Your task to perform on an android device: toggle javascript in the chrome app Image 0: 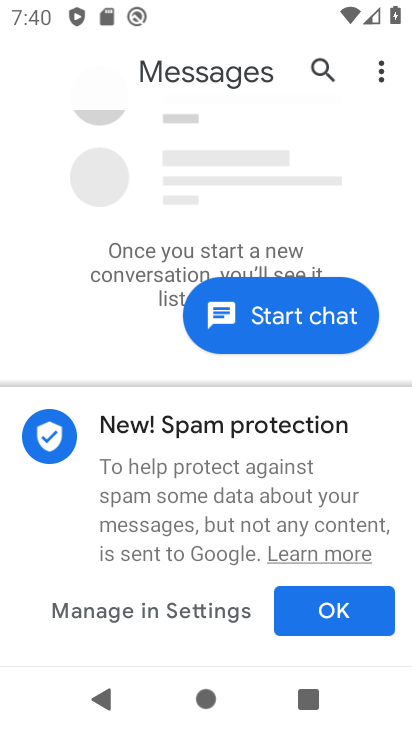
Step 0: press back button
Your task to perform on an android device: toggle javascript in the chrome app Image 1: 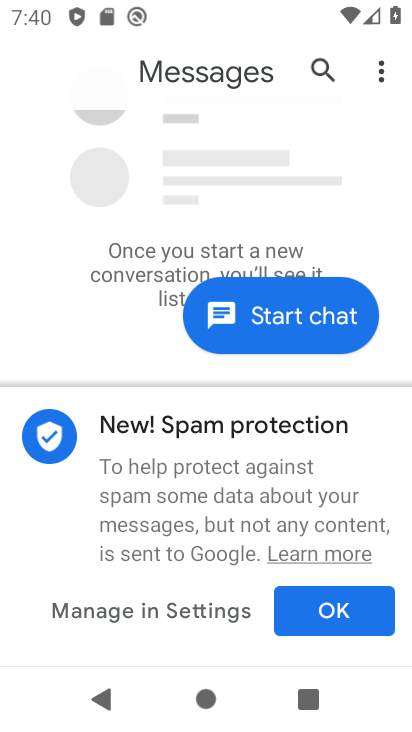
Step 1: press back button
Your task to perform on an android device: toggle javascript in the chrome app Image 2: 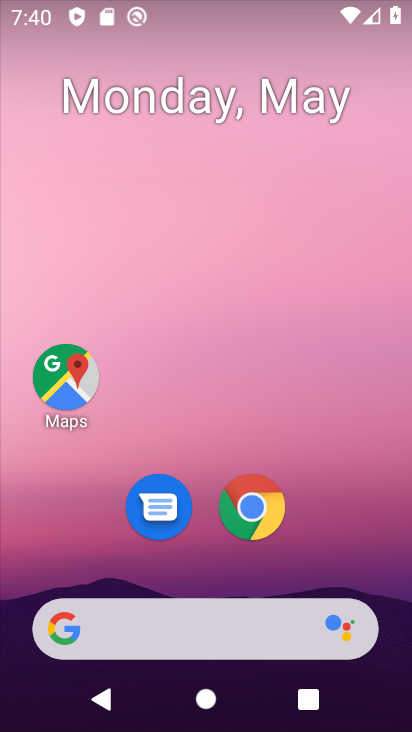
Step 2: drag from (163, 49) to (92, 4)
Your task to perform on an android device: toggle javascript in the chrome app Image 3: 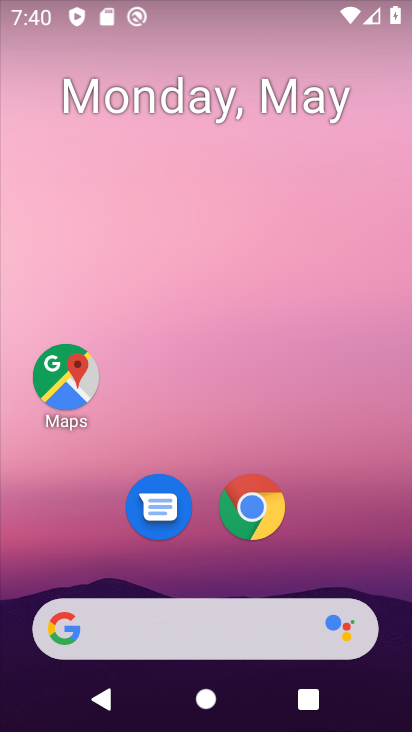
Step 3: drag from (213, 224) to (207, 27)
Your task to perform on an android device: toggle javascript in the chrome app Image 4: 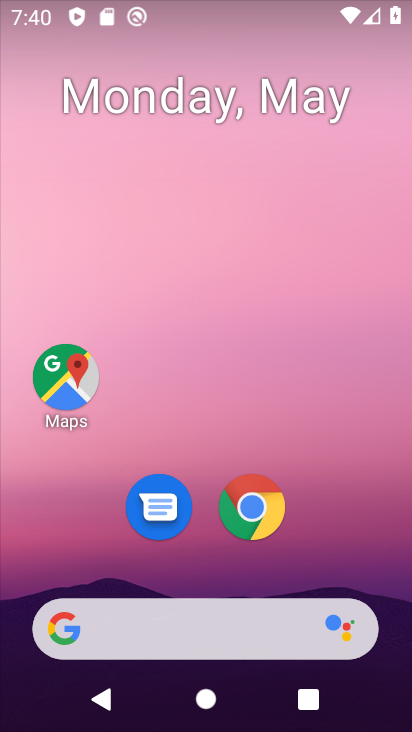
Step 4: drag from (286, 642) to (248, 24)
Your task to perform on an android device: toggle javascript in the chrome app Image 5: 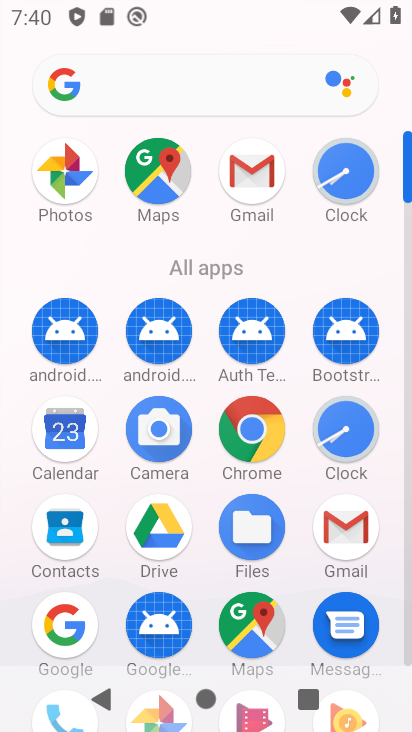
Step 5: drag from (209, 352) to (214, 50)
Your task to perform on an android device: toggle javascript in the chrome app Image 6: 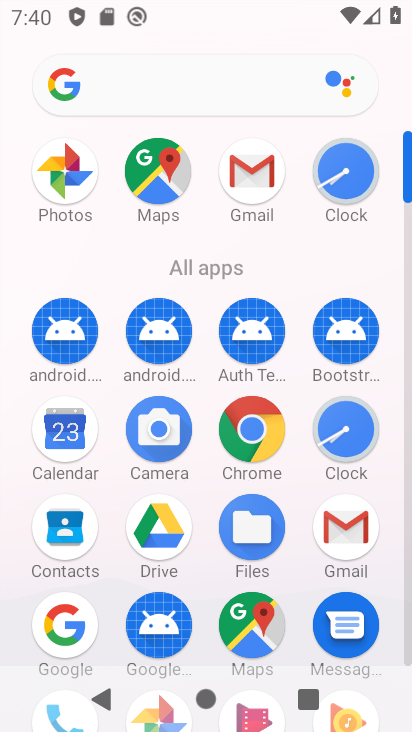
Step 6: click (250, 433)
Your task to perform on an android device: toggle javascript in the chrome app Image 7: 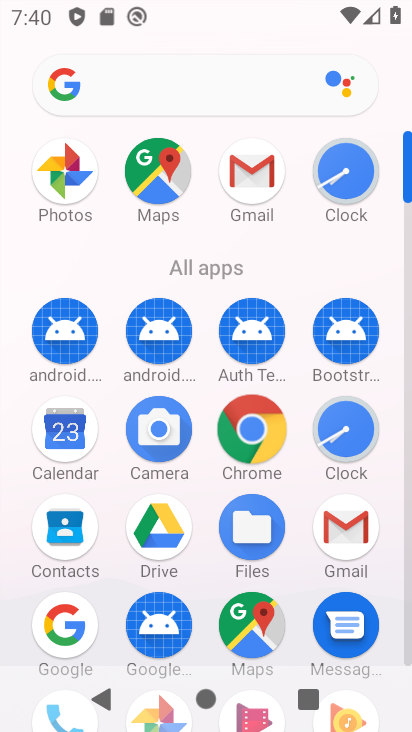
Step 7: click (250, 433)
Your task to perform on an android device: toggle javascript in the chrome app Image 8: 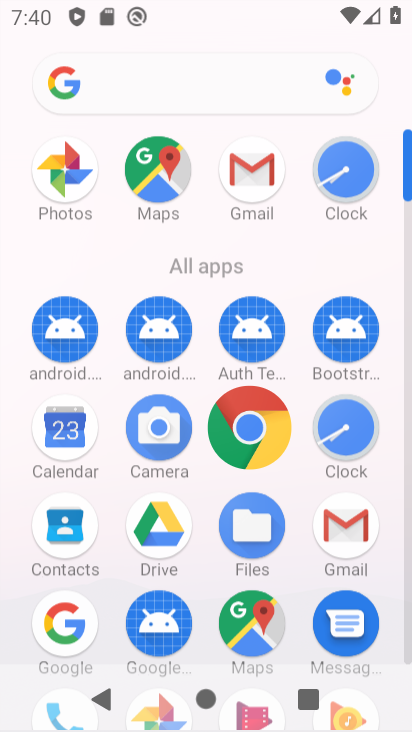
Step 8: click (252, 433)
Your task to perform on an android device: toggle javascript in the chrome app Image 9: 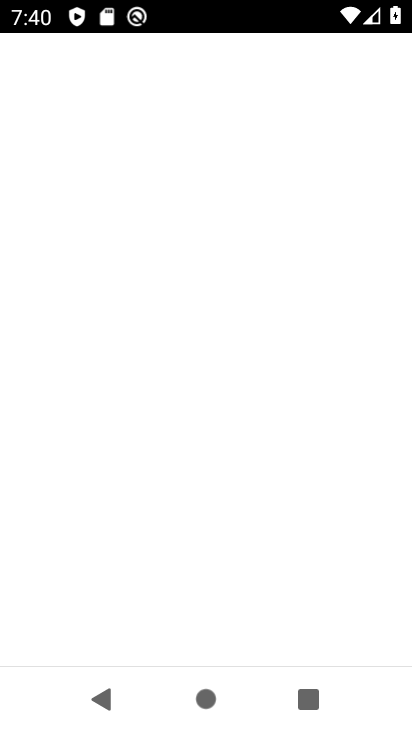
Step 9: click (253, 433)
Your task to perform on an android device: toggle javascript in the chrome app Image 10: 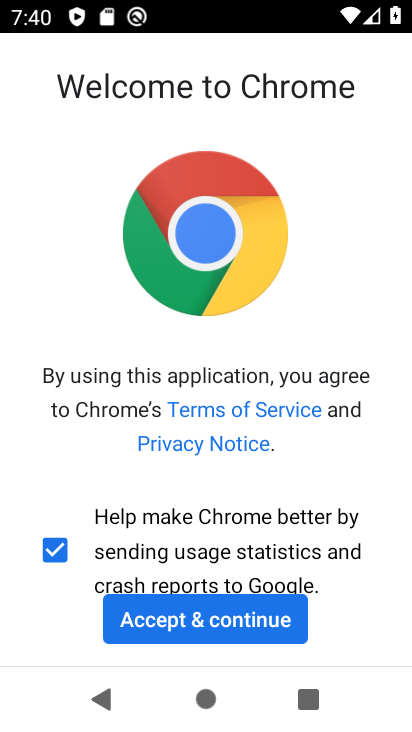
Step 10: click (216, 622)
Your task to perform on an android device: toggle javascript in the chrome app Image 11: 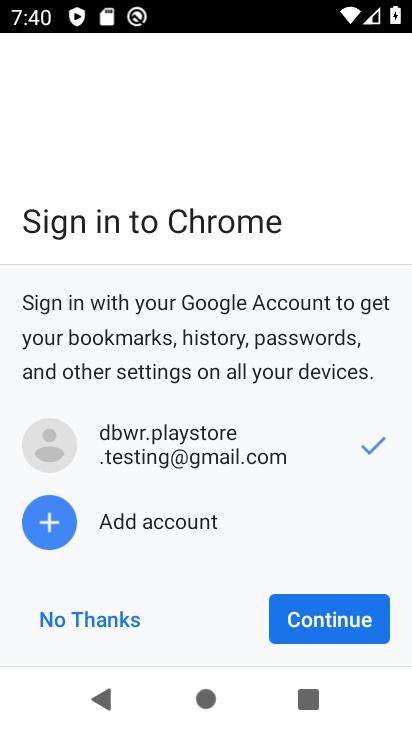
Step 11: click (285, 610)
Your task to perform on an android device: toggle javascript in the chrome app Image 12: 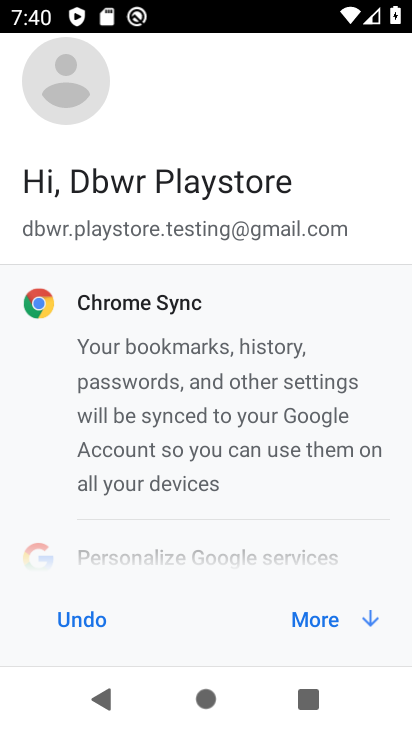
Step 12: click (319, 624)
Your task to perform on an android device: toggle javascript in the chrome app Image 13: 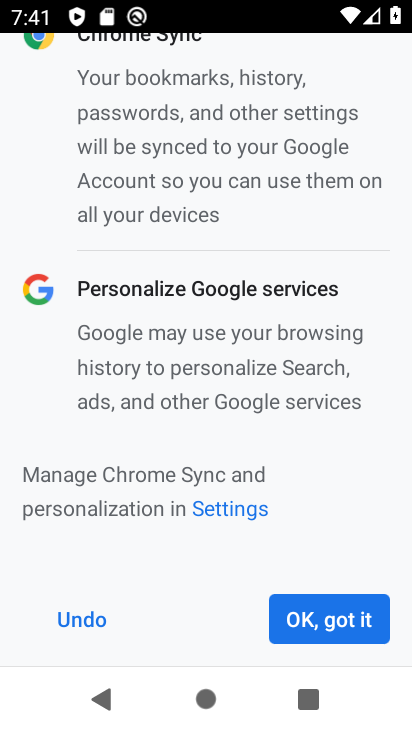
Step 13: click (332, 623)
Your task to perform on an android device: toggle javascript in the chrome app Image 14: 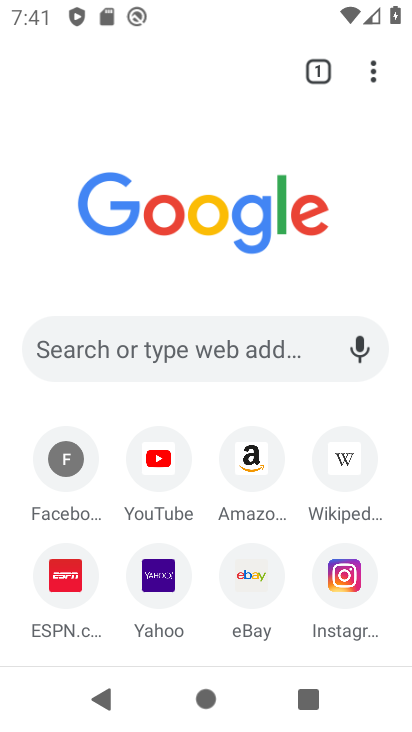
Step 14: click (371, 71)
Your task to perform on an android device: toggle javascript in the chrome app Image 15: 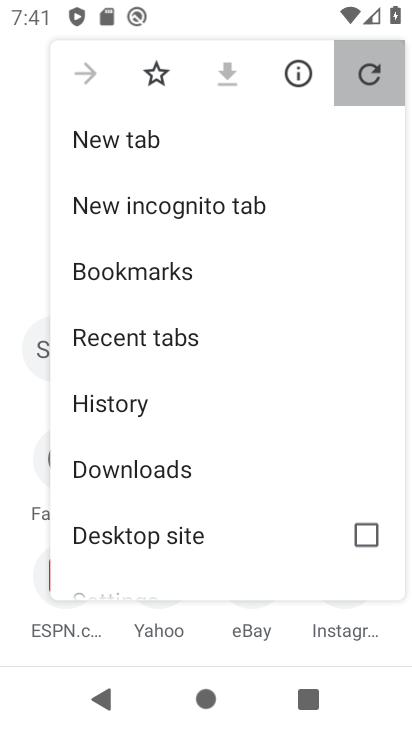
Step 15: click (370, 69)
Your task to perform on an android device: toggle javascript in the chrome app Image 16: 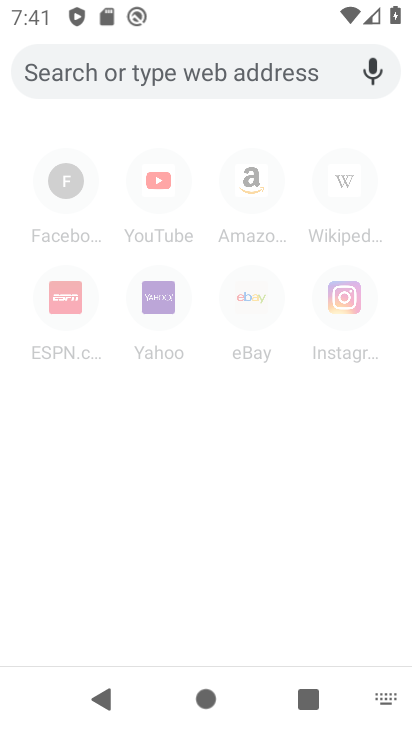
Step 16: drag from (159, 510) to (161, 55)
Your task to perform on an android device: toggle javascript in the chrome app Image 17: 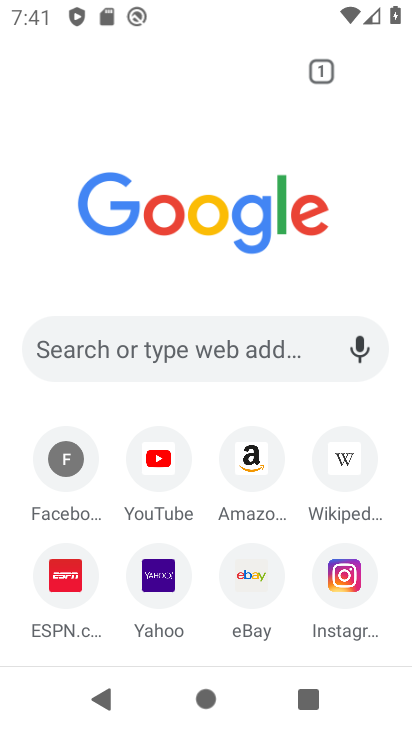
Step 17: drag from (175, 154) to (183, 18)
Your task to perform on an android device: toggle javascript in the chrome app Image 18: 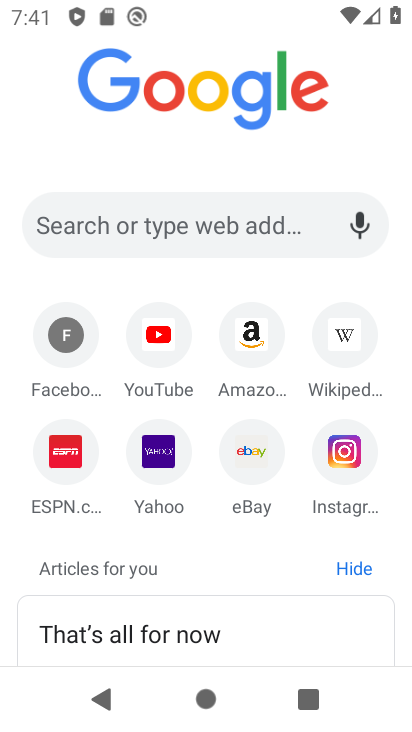
Step 18: drag from (201, 431) to (210, 103)
Your task to perform on an android device: toggle javascript in the chrome app Image 19: 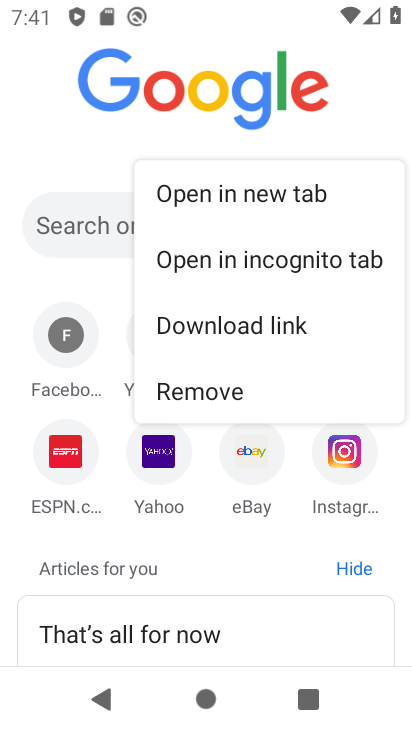
Step 19: click (244, 208)
Your task to perform on an android device: toggle javascript in the chrome app Image 20: 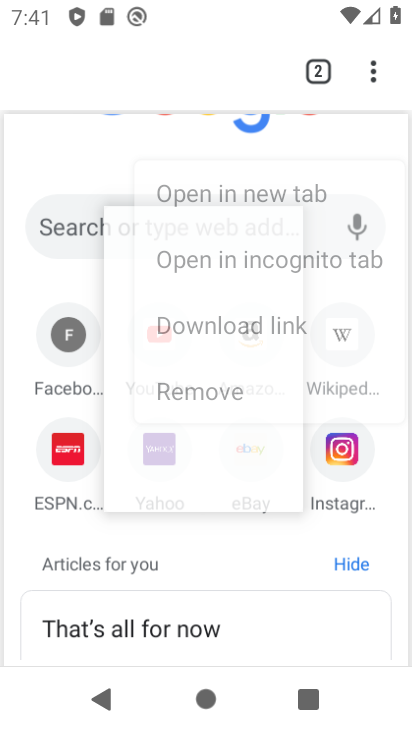
Step 20: drag from (156, 192) to (140, 74)
Your task to perform on an android device: toggle javascript in the chrome app Image 21: 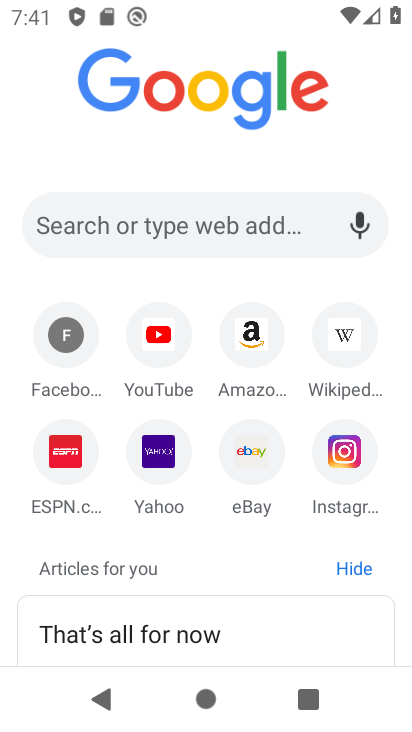
Step 21: drag from (374, 359) to (365, 457)
Your task to perform on an android device: toggle javascript in the chrome app Image 22: 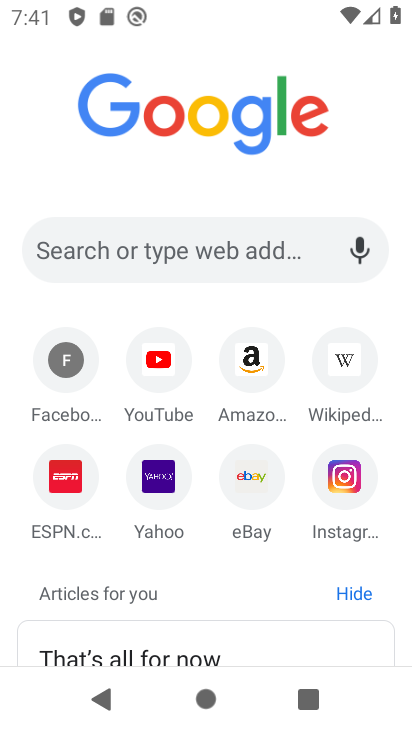
Step 22: drag from (364, 312) to (351, 476)
Your task to perform on an android device: toggle javascript in the chrome app Image 23: 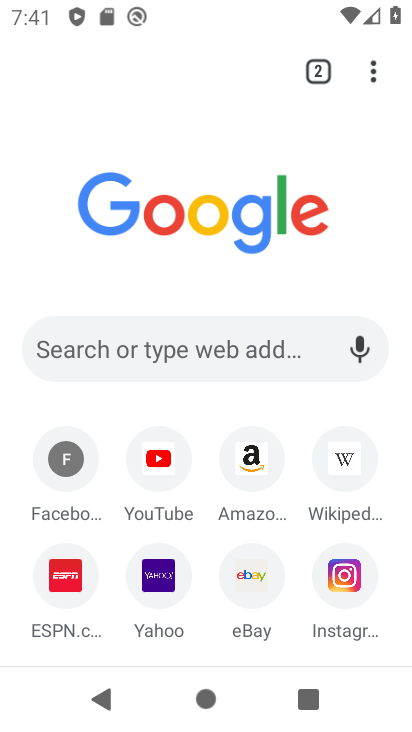
Step 23: drag from (327, 387) to (393, 368)
Your task to perform on an android device: toggle javascript in the chrome app Image 24: 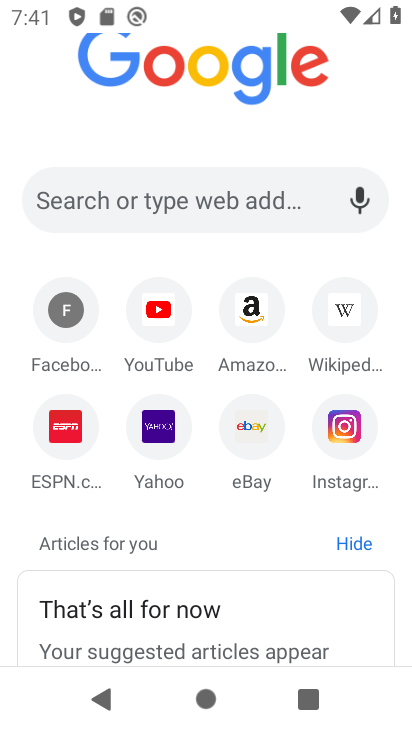
Step 24: drag from (352, 179) to (354, 458)
Your task to perform on an android device: toggle javascript in the chrome app Image 25: 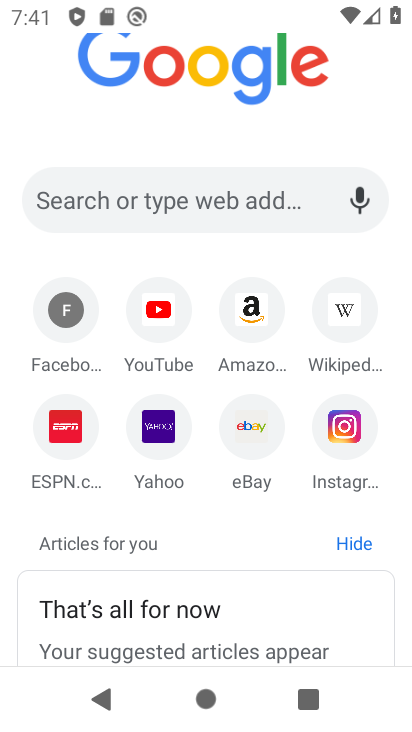
Step 25: click (369, 74)
Your task to perform on an android device: toggle javascript in the chrome app Image 26: 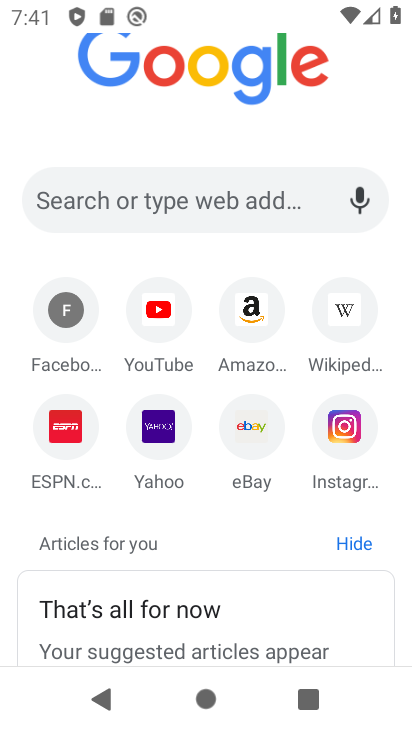
Step 26: drag from (338, 99) to (349, 403)
Your task to perform on an android device: toggle javascript in the chrome app Image 27: 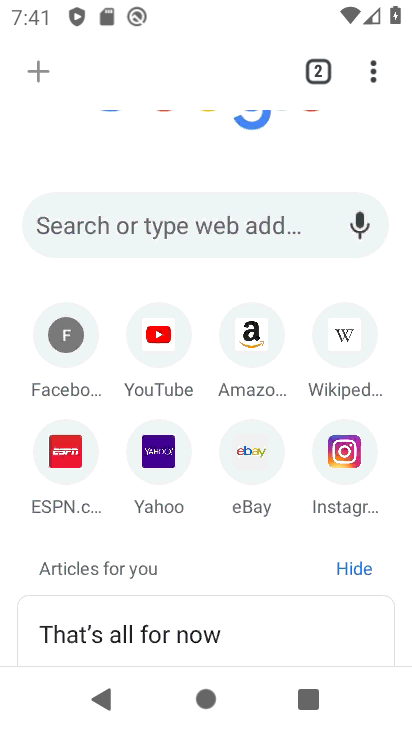
Step 27: drag from (325, 145) to (354, 536)
Your task to perform on an android device: toggle javascript in the chrome app Image 28: 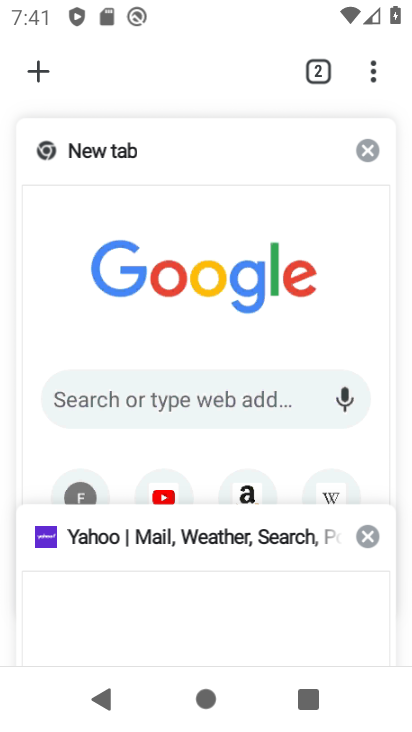
Step 28: click (370, 60)
Your task to perform on an android device: toggle javascript in the chrome app Image 29: 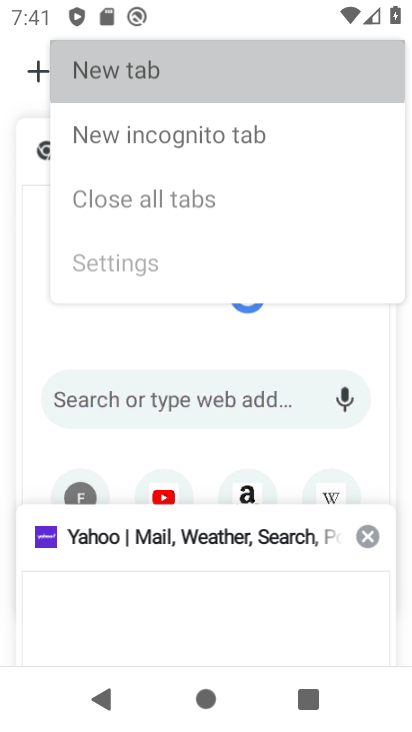
Step 29: click (370, 63)
Your task to perform on an android device: toggle javascript in the chrome app Image 30: 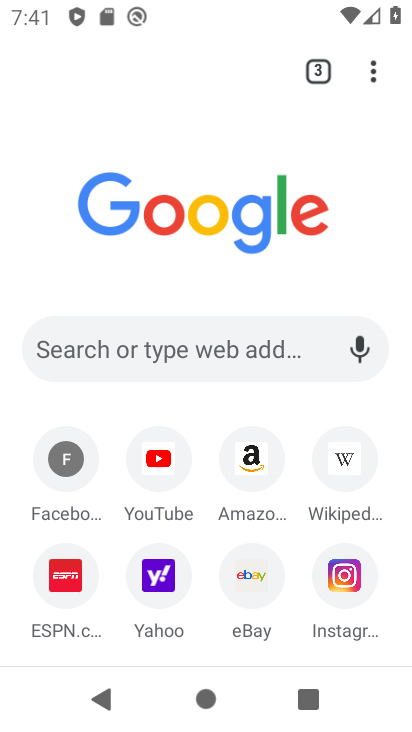
Step 30: drag from (370, 68) to (120, 504)
Your task to perform on an android device: toggle javascript in the chrome app Image 31: 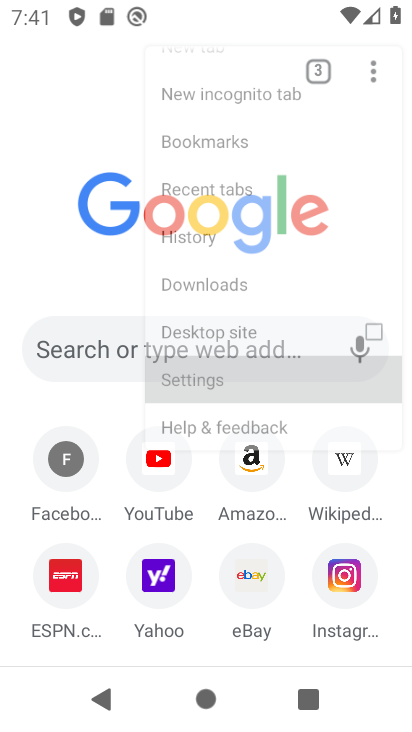
Step 31: click (120, 504)
Your task to perform on an android device: toggle javascript in the chrome app Image 32: 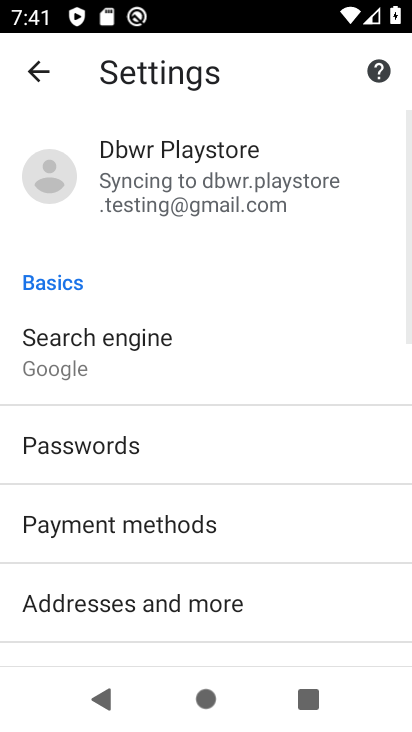
Step 32: drag from (74, 194) to (71, 37)
Your task to perform on an android device: toggle javascript in the chrome app Image 33: 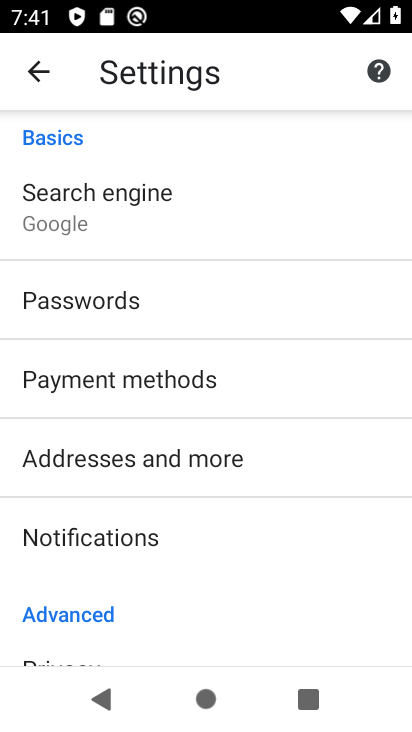
Step 33: drag from (121, 667) to (152, 146)
Your task to perform on an android device: toggle javascript in the chrome app Image 34: 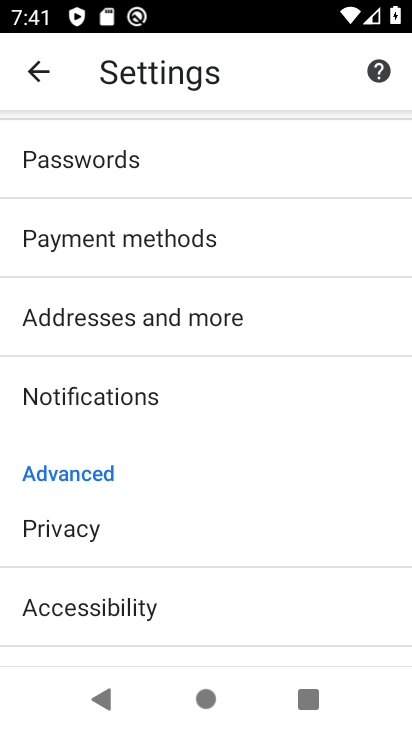
Step 34: click (170, 107)
Your task to perform on an android device: toggle javascript in the chrome app Image 35: 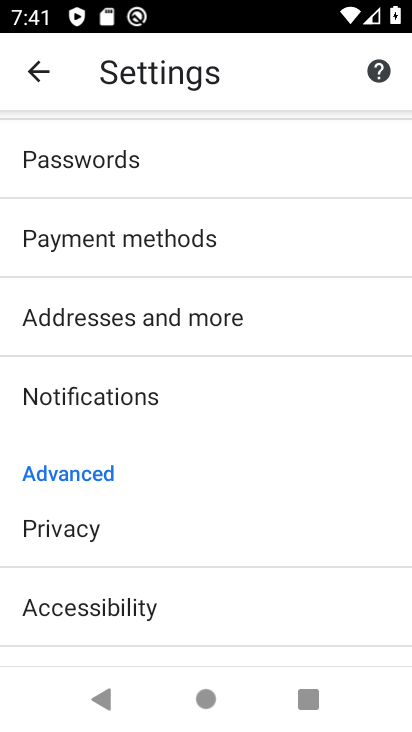
Step 35: drag from (154, 534) to (68, 106)
Your task to perform on an android device: toggle javascript in the chrome app Image 36: 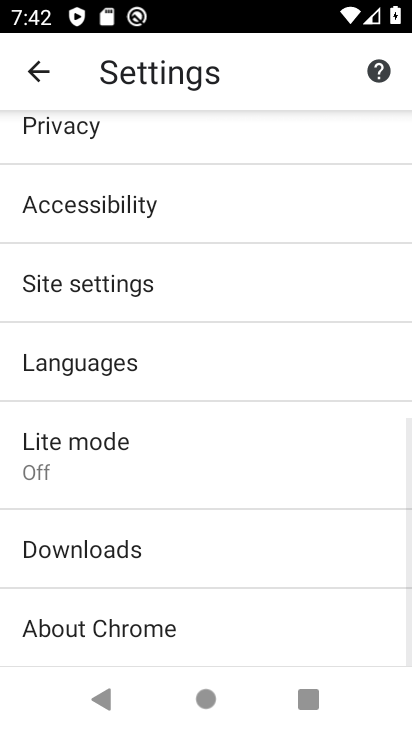
Step 36: drag from (185, 207) to (210, 246)
Your task to perform on an android device: toggle javascript in the chrome app Image 37: 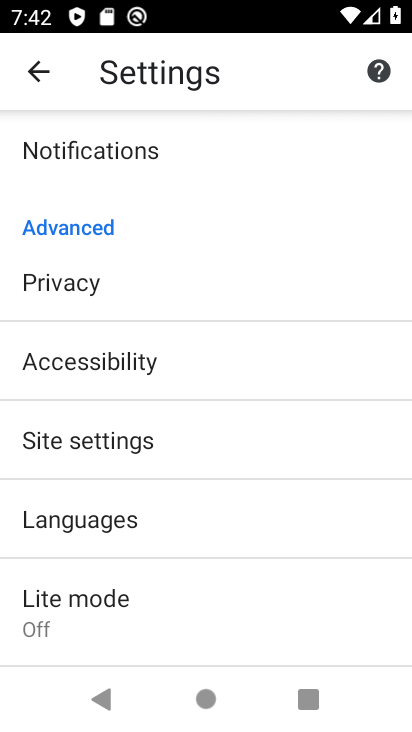
Step 37: click (78, 438)
Your task to perform on an android device: toggle javascript in the chrome app Image 38: 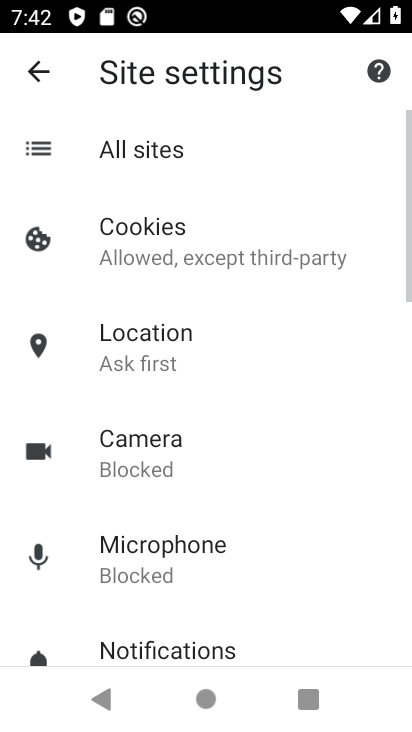
Step 38: drag from (181, 556) to (181, 253)
Your task to perform on an android device: toggle javascript in the chrome app Image 39: 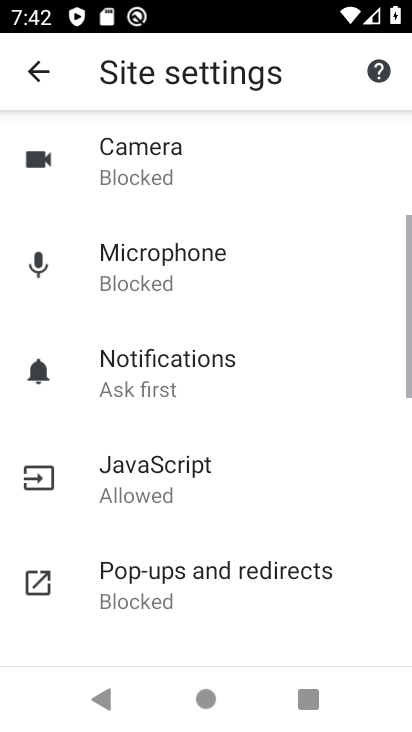
Step 39: drag from (185, 456) to (201, 184)
Your task to perform on an android device: toggle javascript in the chrome app Image 40: 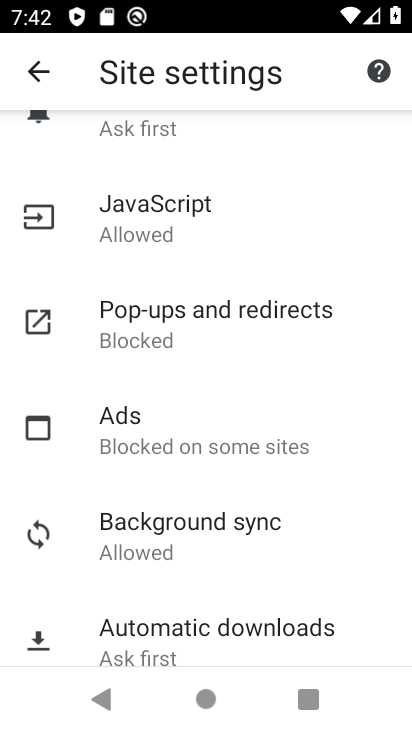
Step 40: click (140, 222)
Your task to perform on an android device: toggle javascript in the chrome app Image 41: 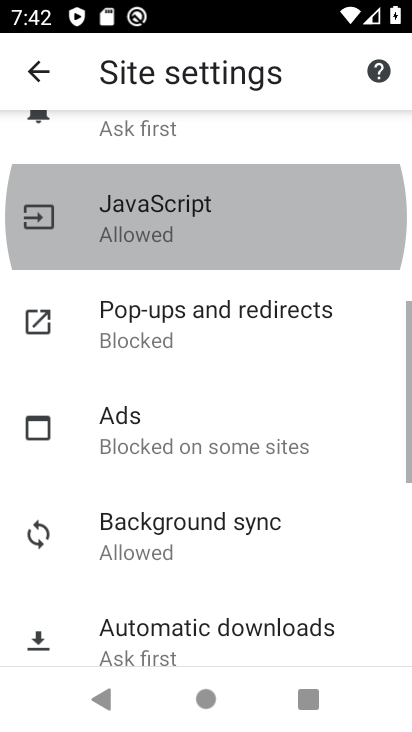
Step 41: click (140, 222)
Your task to perform on an android device: toggle javascript in the chrome app Image 42: 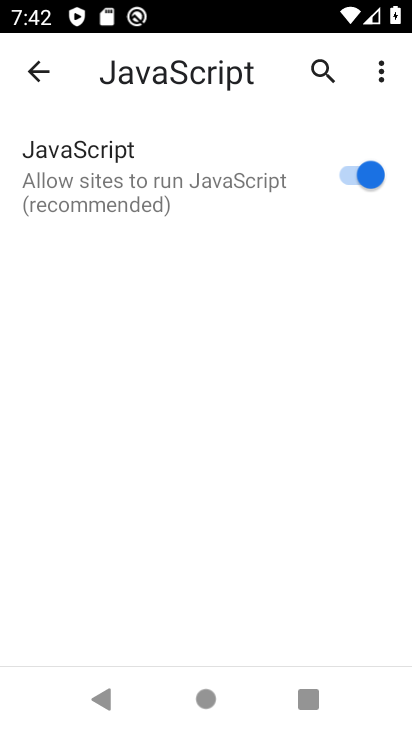
Step 42: click (367, 173)
Your task to perform on an android device: toggle javascript in the chrome app Image 43: 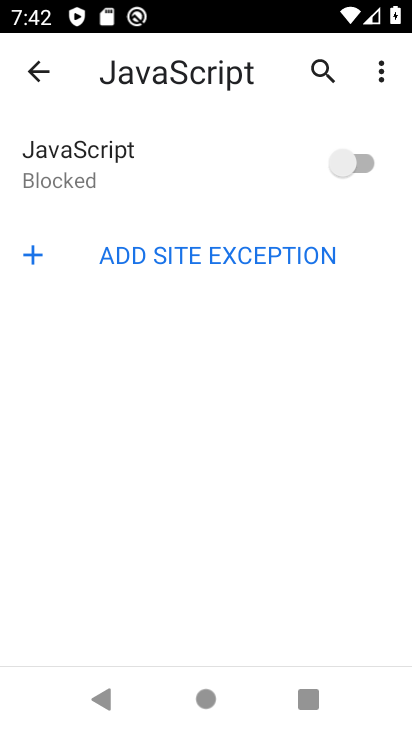
Step 43: task complete